Your task to perform on an android device: Show the shopping cart on amazon.com. Search for "apple airpods pro" on amazon.com, select the first entry, and add it to the cart. Image 0: 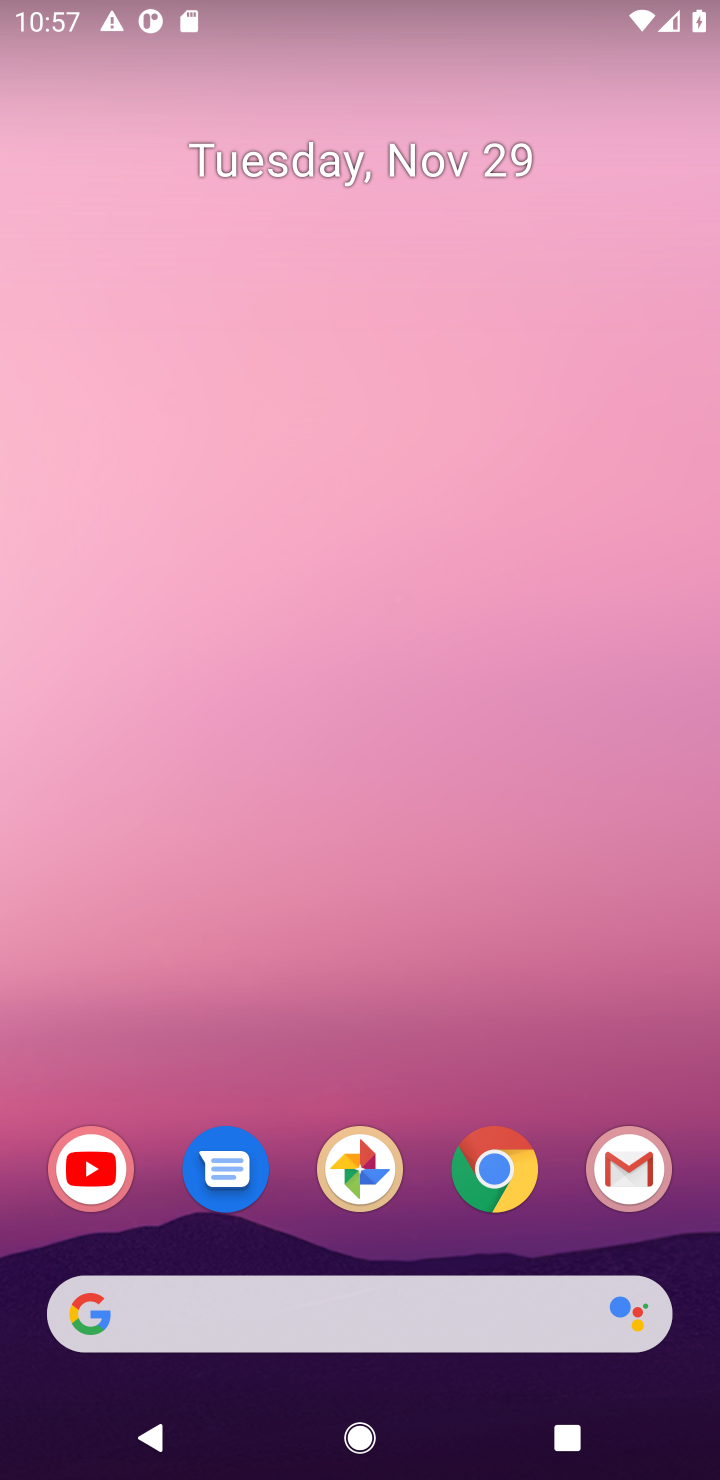
Step 0: click (249, 1316)
Your task to perform on an android device: Show the shopping cart on amazon.com. Search for "apple airpods pro" on amazon.com, select the first entry, and add it to the cart. Image 1: 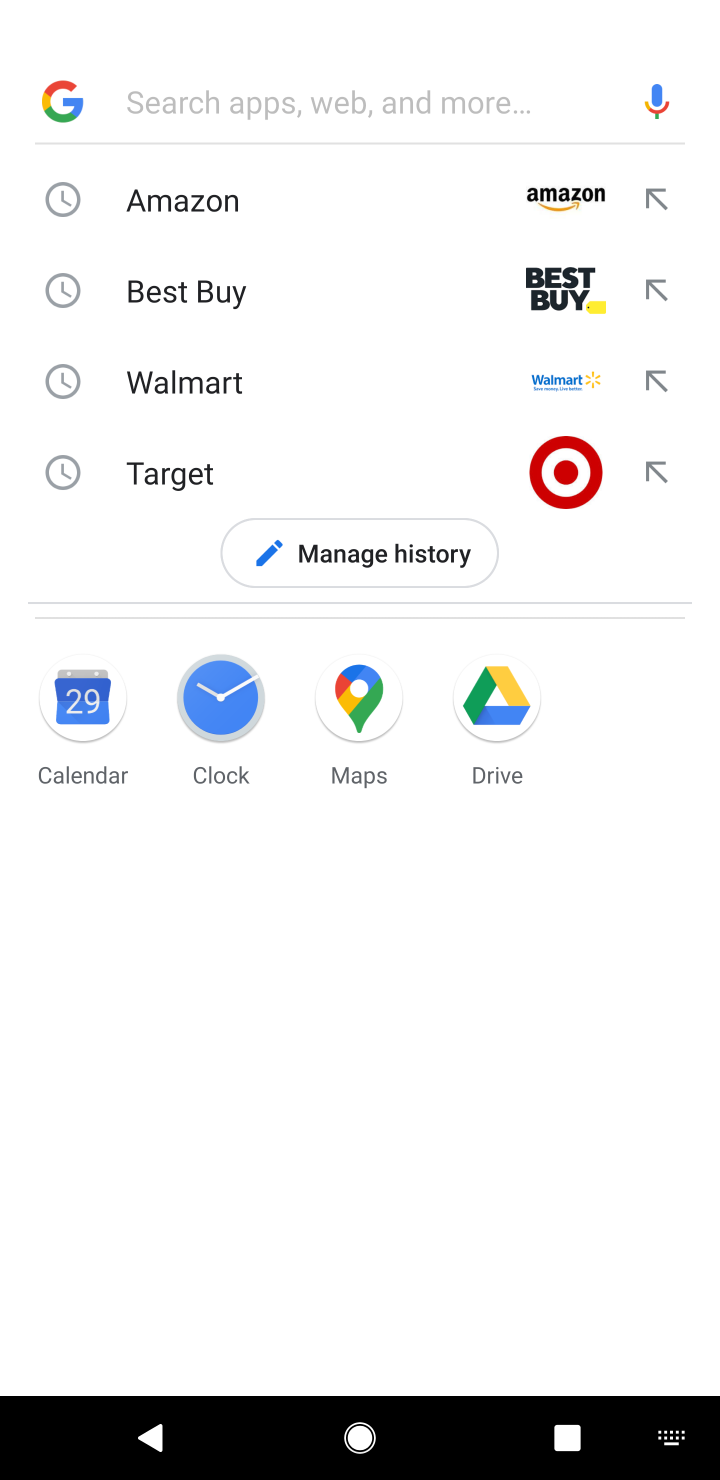
Step 1: click (183, 198)
Your task to perform on an android device: Show the shopping cart on amazon.com. Search for "apple airpods pro" on amazon.com, select the first entry, and add it to the cart. Image 2: 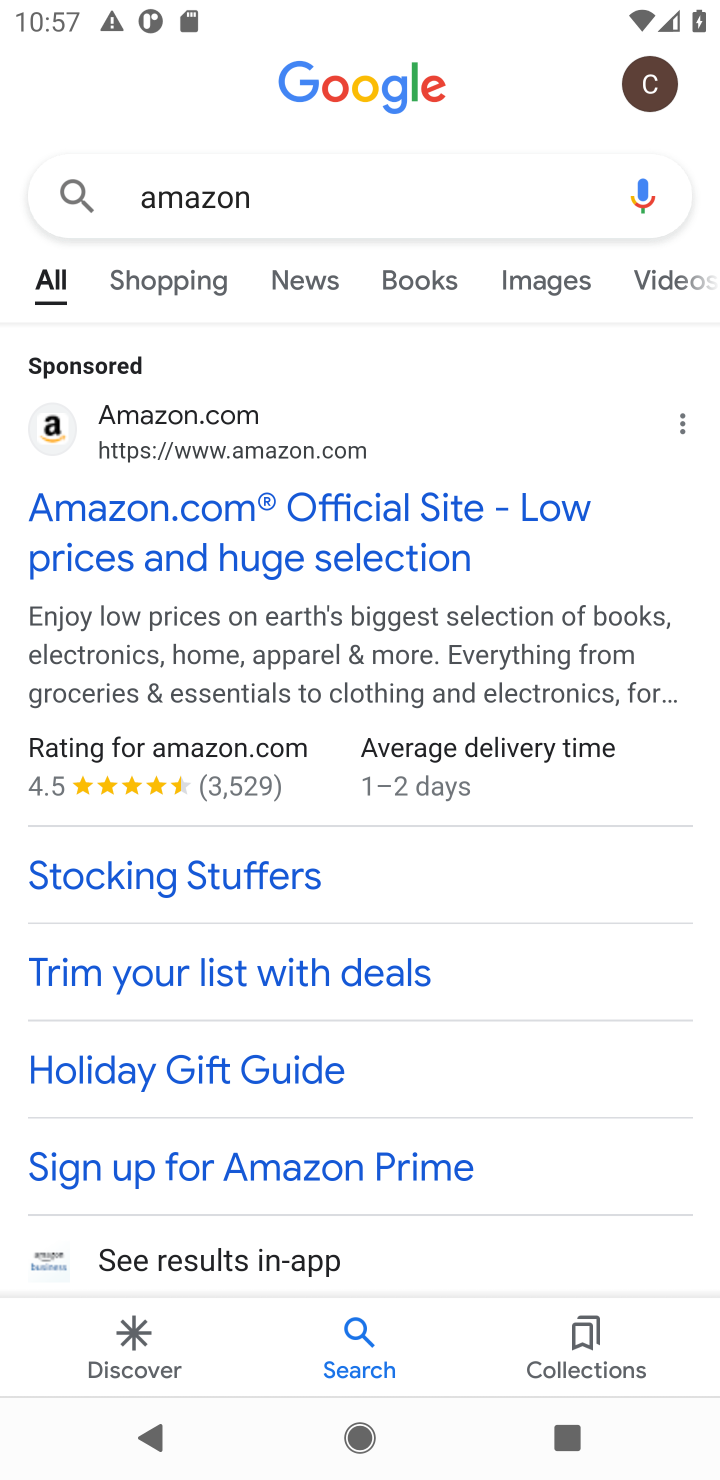
Step 2: click (255, 579)
Your task to perform on an android device: Show the shopping cart on amazon.com. Search for "apple airpods pro" on amazon.com, select the first entry, and add it to the cart. Image 3: 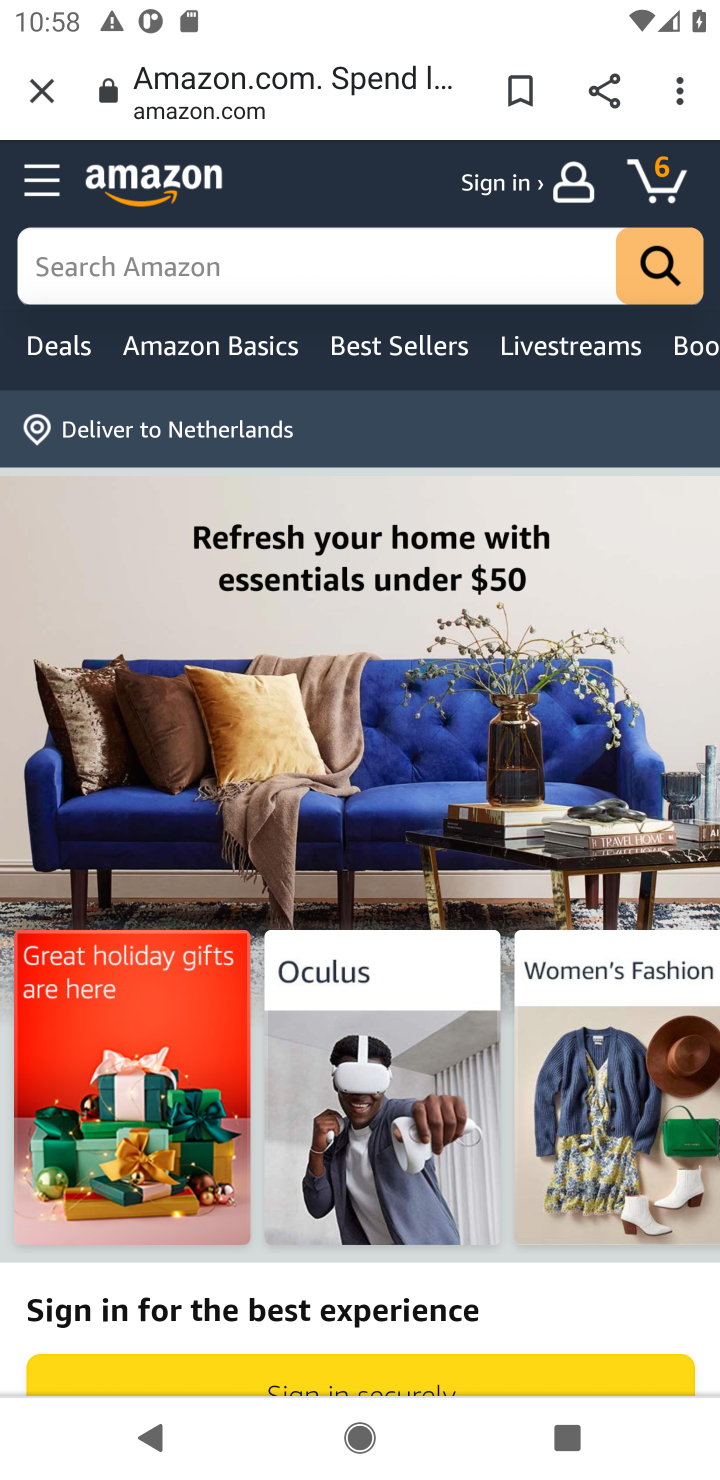
Step 3: click (153, 285)
Your task to perform on an android device: Show the shopping cart on amazon.com. Search for "apple airpods pro" on amazon.com, select the first entry, and add it to the cart. Image 4: 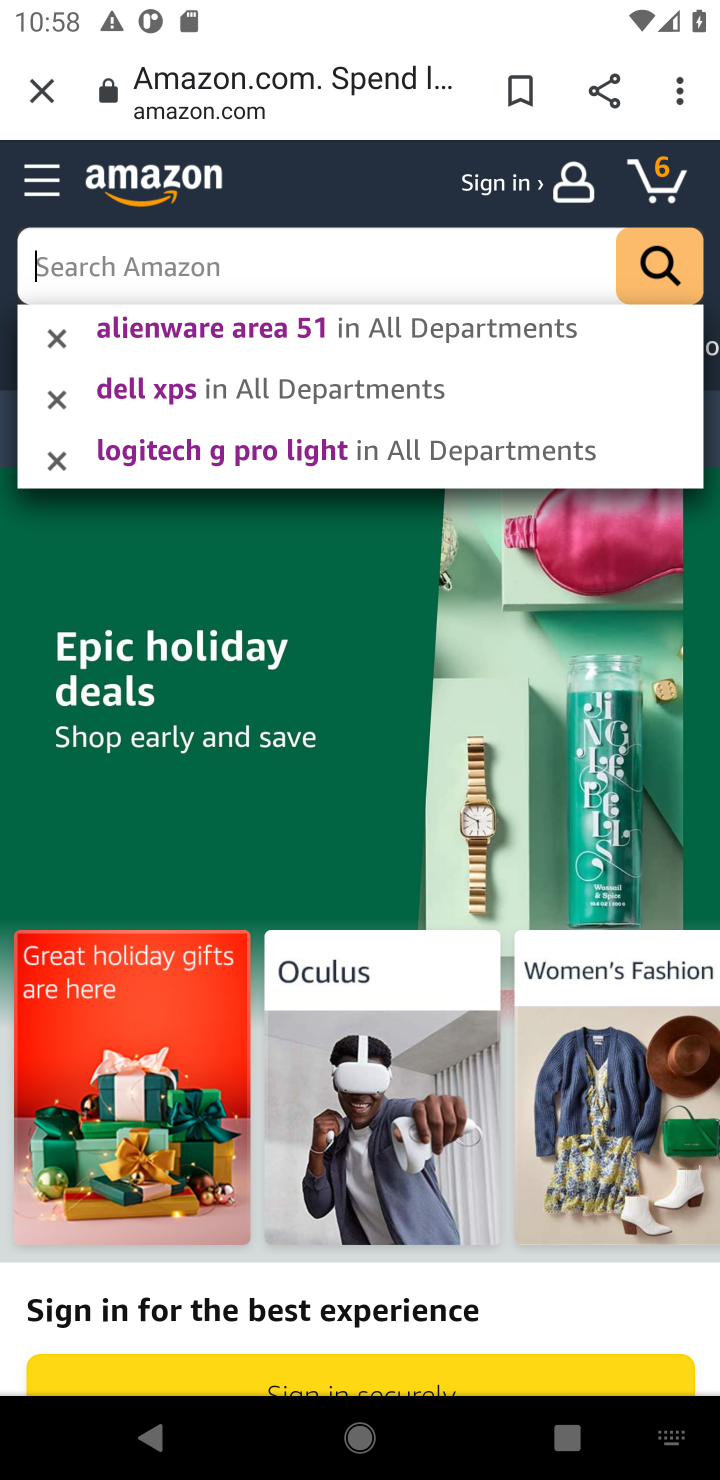
Step 4: type "apple airpod"
Your task to perform on an android device: Show the shopping cart on amazon.com. Search for "apple airpods pro" on amazon.com, select the first entry, and add it to the cart. Image 5: 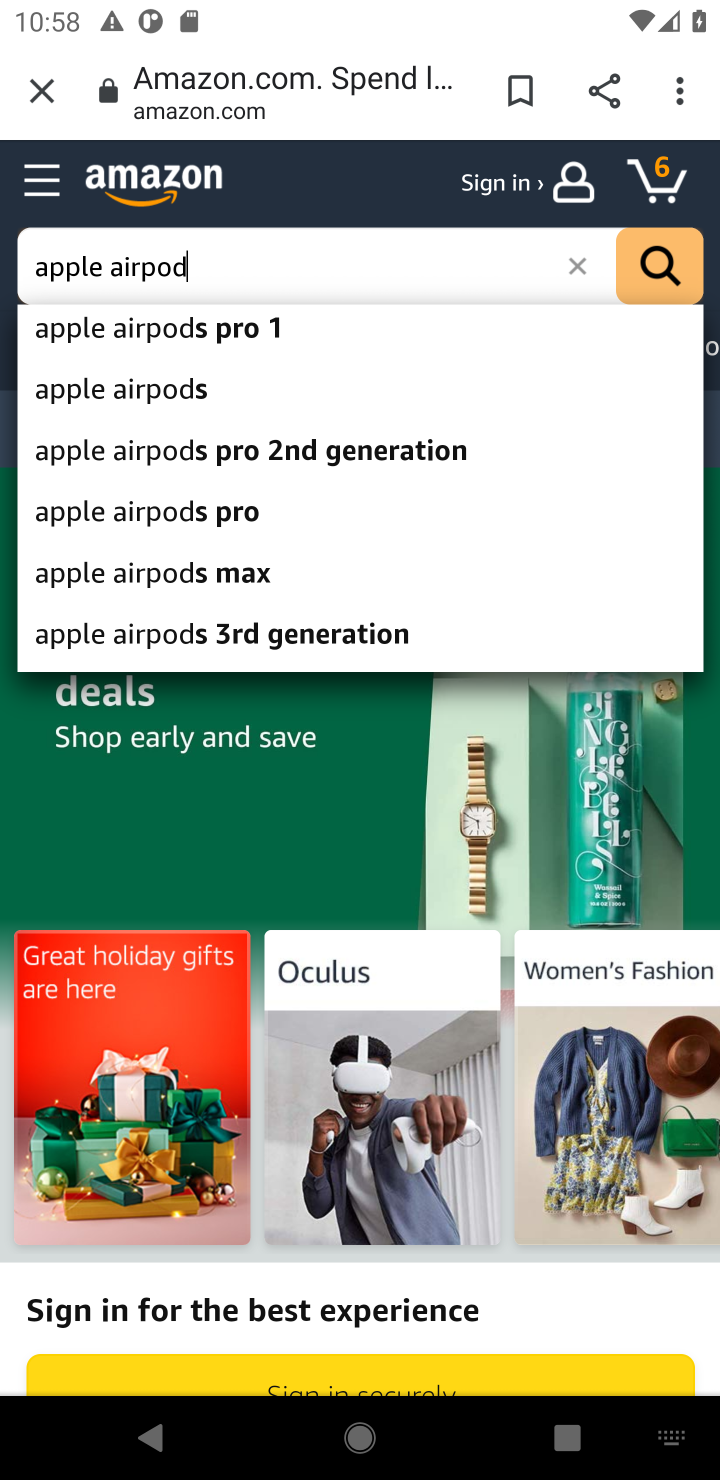
Step 5: click (190, 395)
Your task to perform on an android device: Show the shopping cart on amazon.com. Search for "apple airpods pro" on amazon.com, select the first entry, and add it to the cart. Image 6: 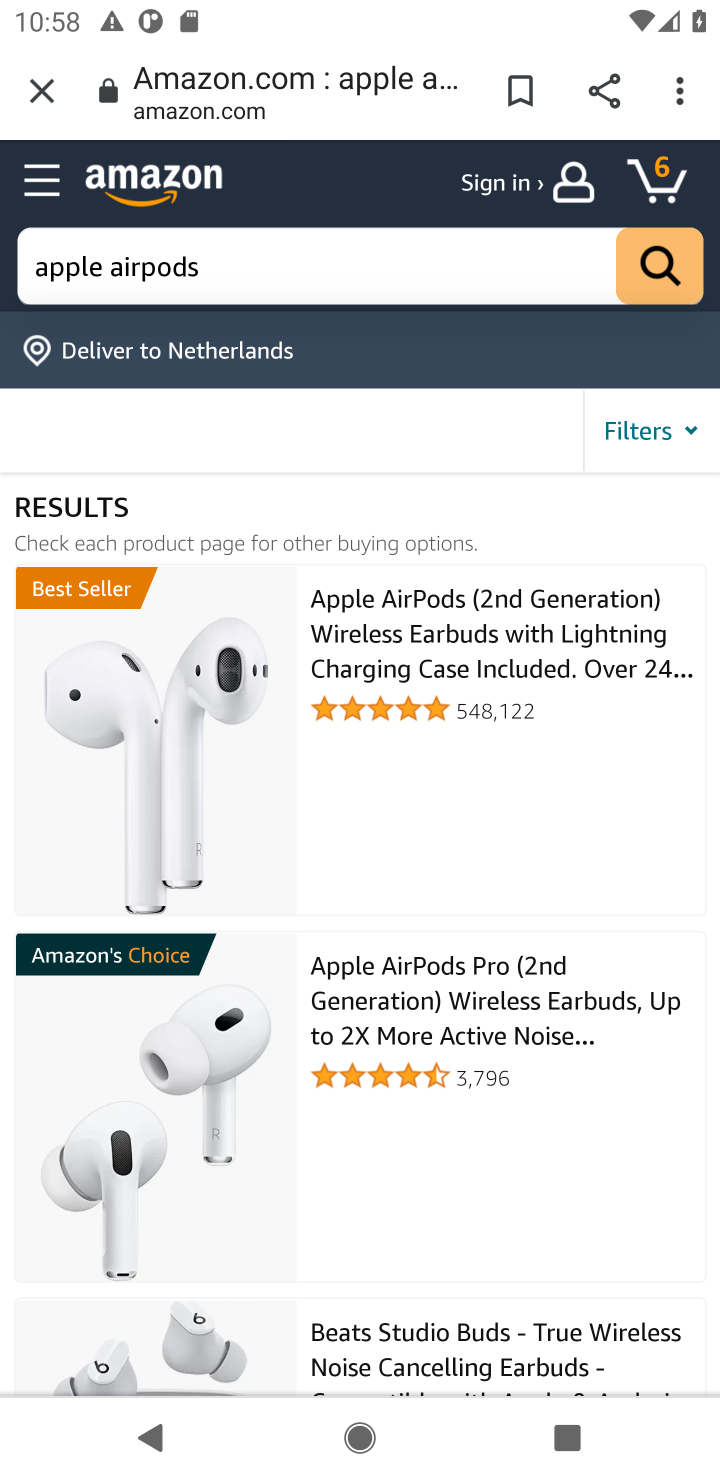
Step 6: click (413, 621)
Your task to perform on an android device: Show the shopping cart on amazon.com. Search for "apple airpods pro" on amazon.com, select the first entry, and add it to the cart. Image 7: 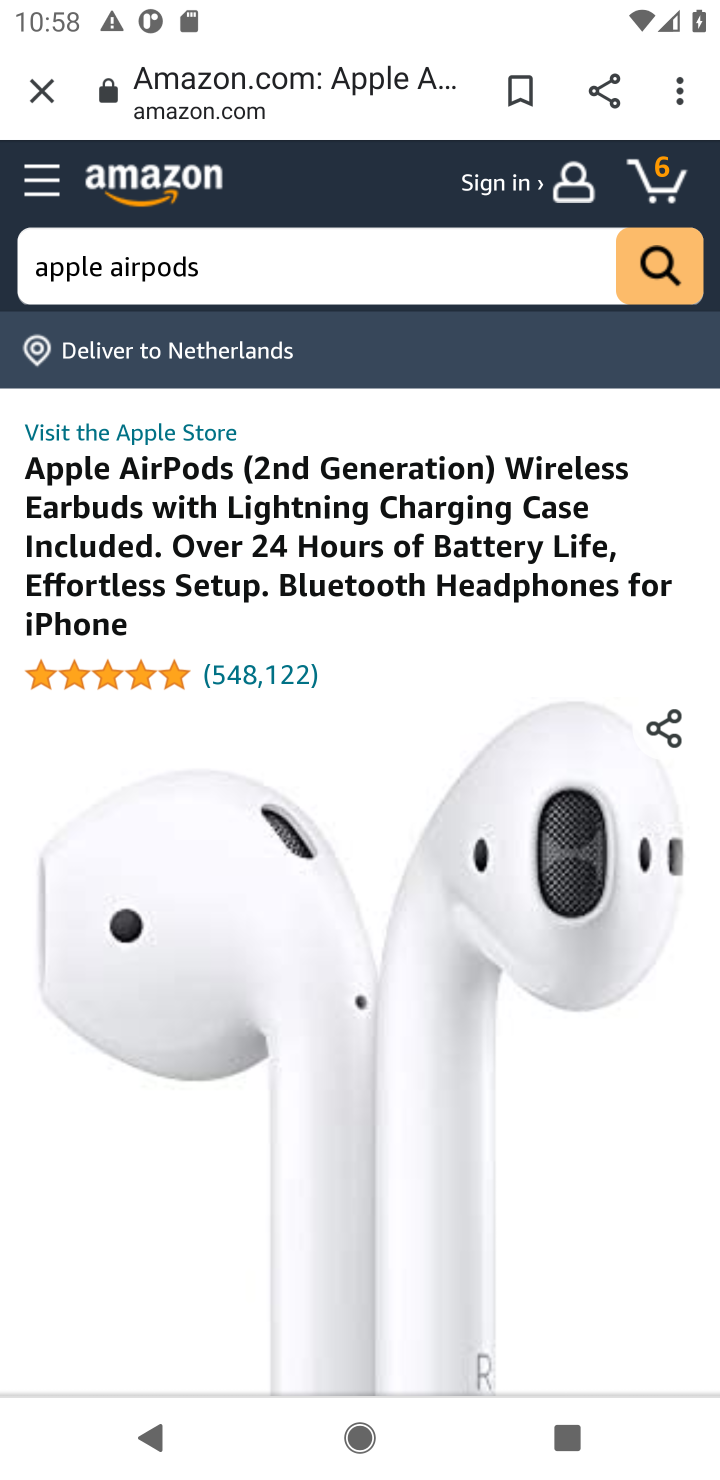
Step 7: drag from (398, 1153) to (400, 725)
Your task to perform on an android device: Show the shopping cart on amazon.com. Search for "apple airpods pro" on amazon.com, select the first entry, and add it to the cart. Image 8: 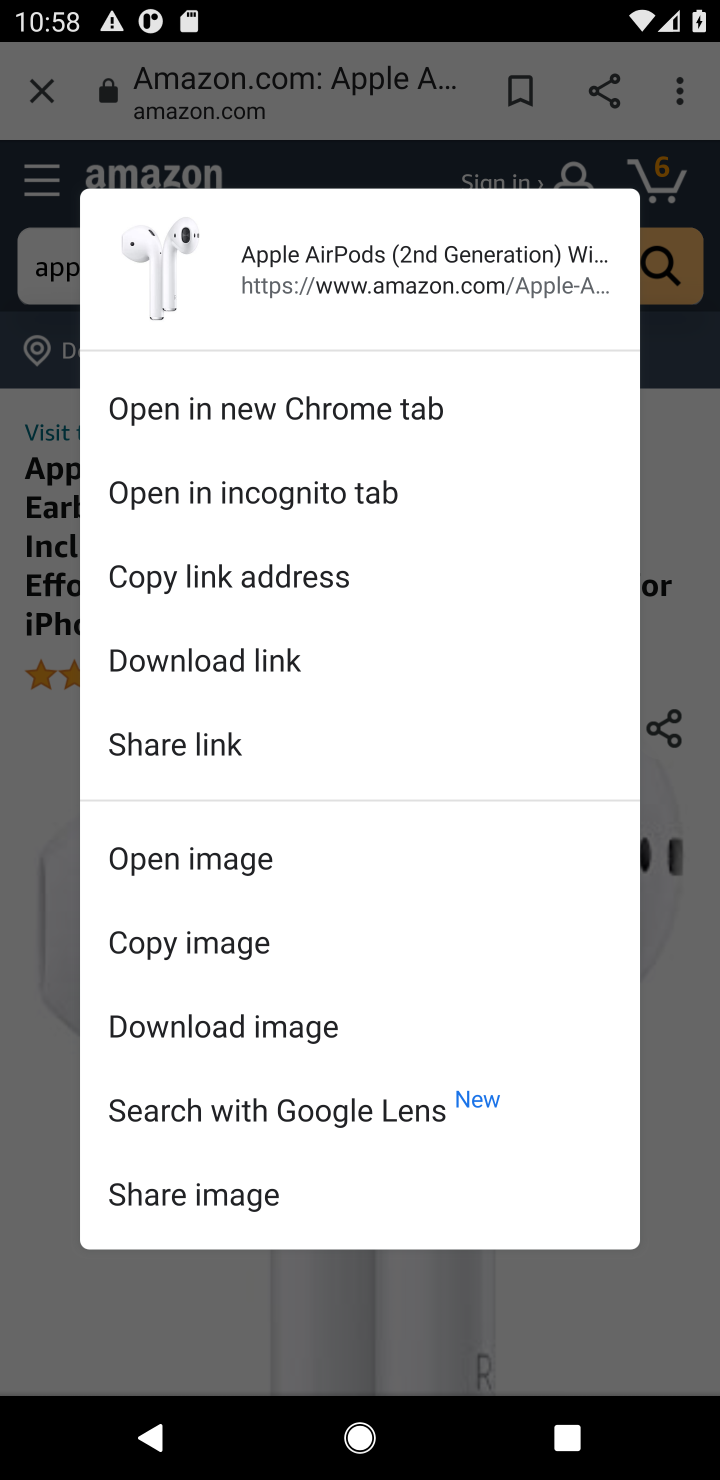
Step 8: click (417, 1296)
Your task to perform on an android device: Show the shopping cart on amazon.com. Search for "apple airpods pro" on amazon.com, select the first entry, and add it to the cart. Image 9: 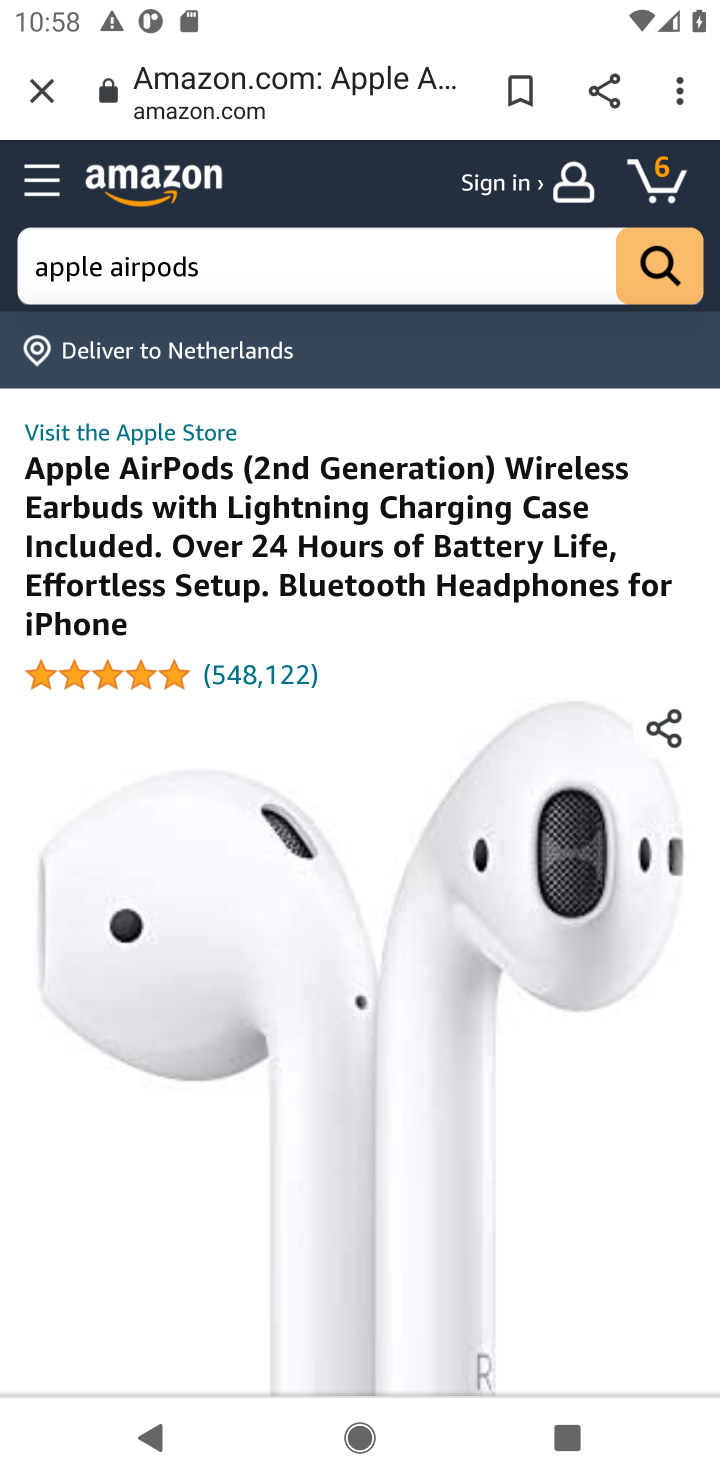
Step 9: drag from (417, 1296) to (361, 942)
Your task to perform on an android device: Show the shopping cart on amazon.com. Search for "apple airpods pro" on amazon.com, select the first entry, and add it to the cart. Image 10: 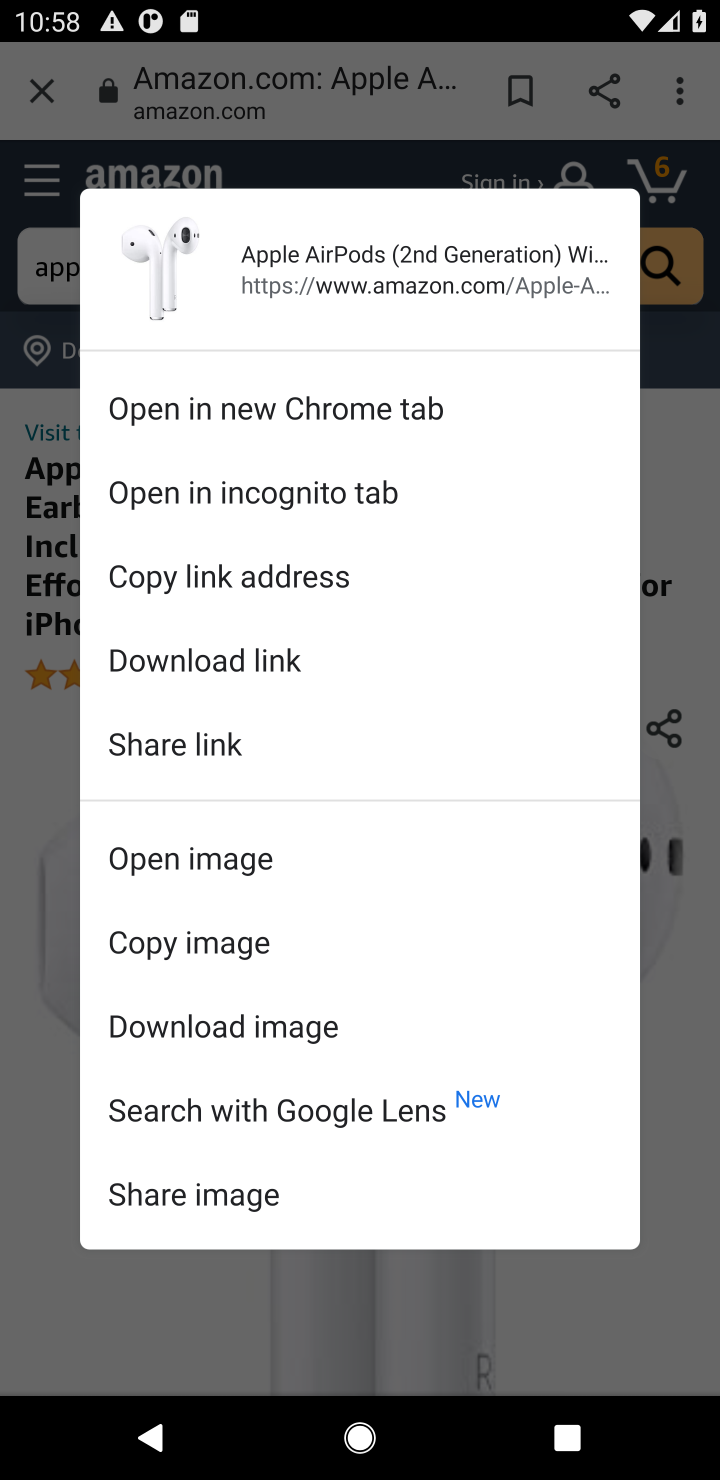
Step 10: click (548, 1291)
Your task to perform on an android device: Show the shopping cart on amazon.com. Search for "apple airpods pro" on amazon.com, select the first entry, and add it to the cart. Image 11: 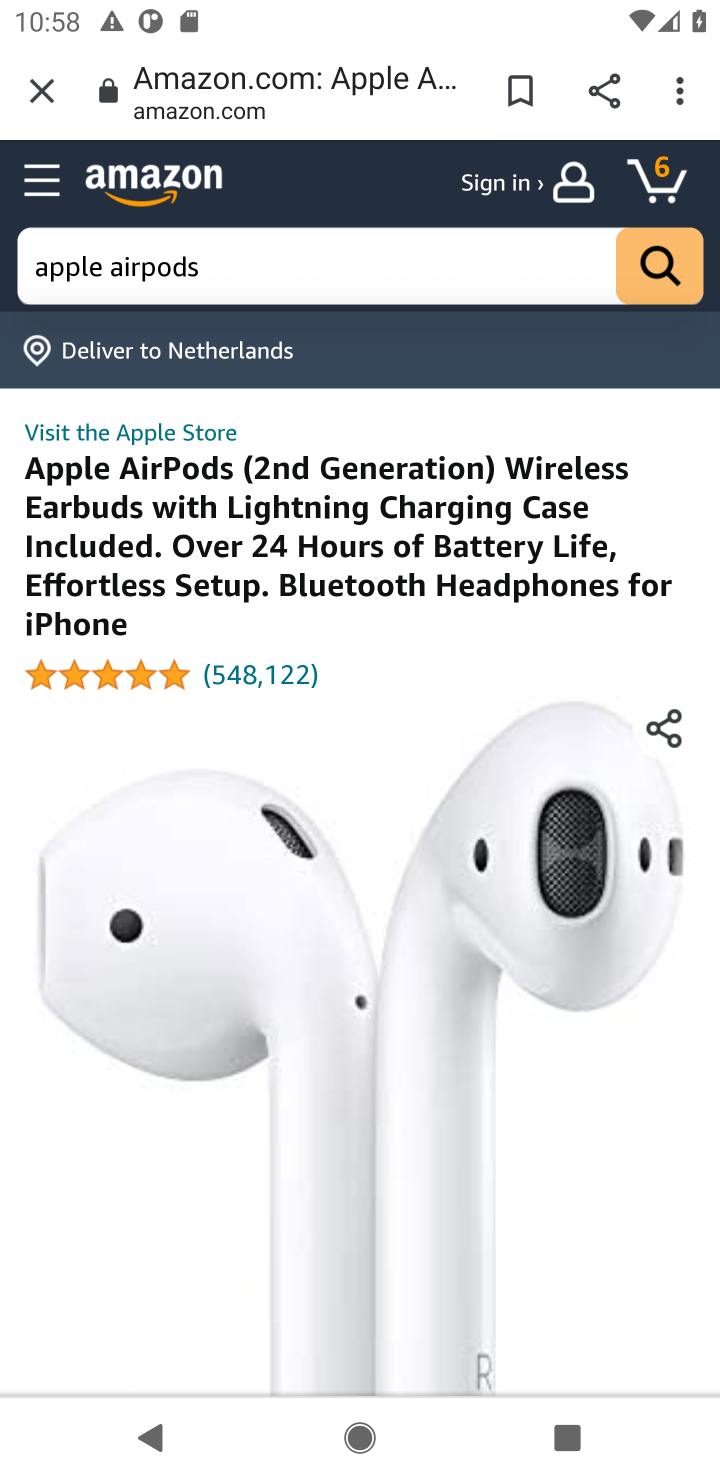
Step 11: drag from (548, 1291) to (325, 0)
Your task to perform on an android device: Show the shopping cart on amazon.com. Search for "apple airpods pro" on amazon.com, select the first entry, and add it to the cart. Image 12: 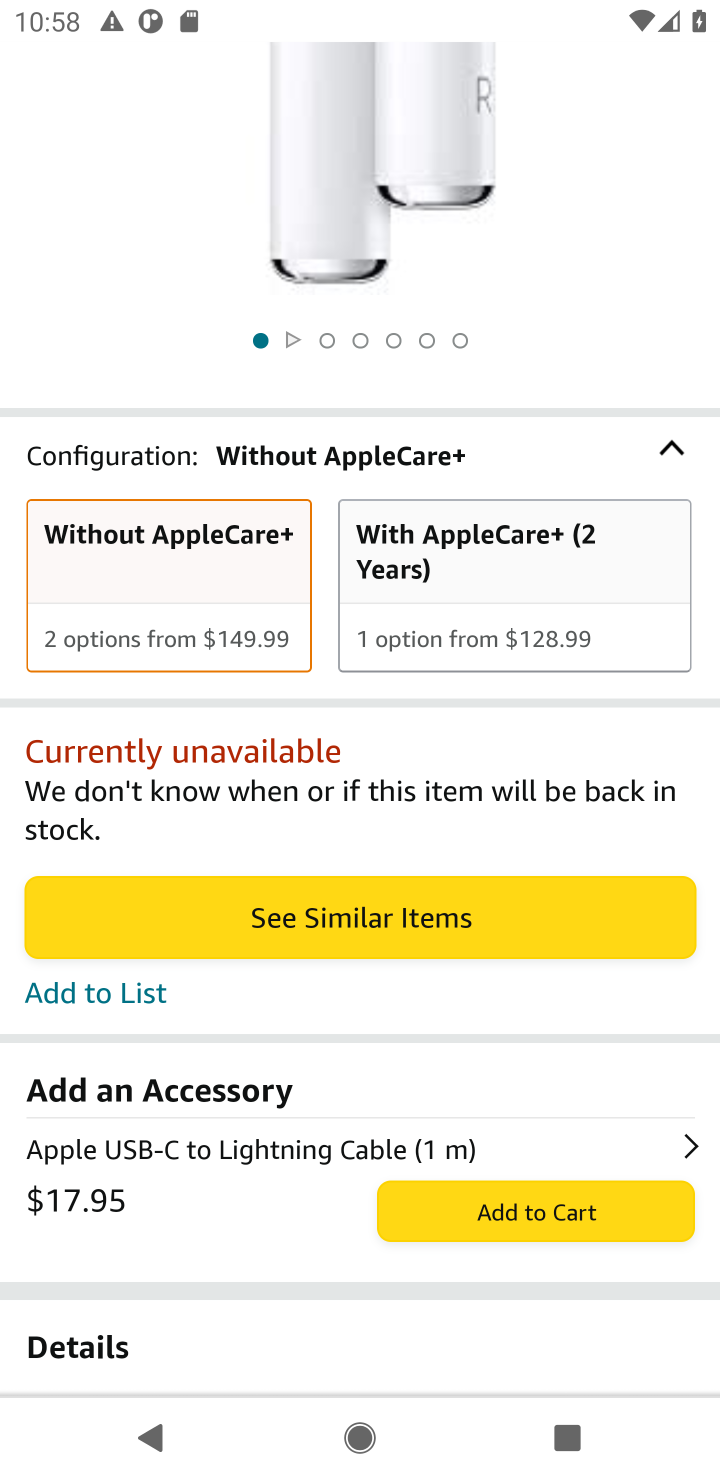
Step 12: click (507, 1199)
Your task to perform on an android device: Show the shopping cart on amazon.com. Search for "apple airpods pro" on amazon.com, select the first entry, and add it to the cart. Image 13: 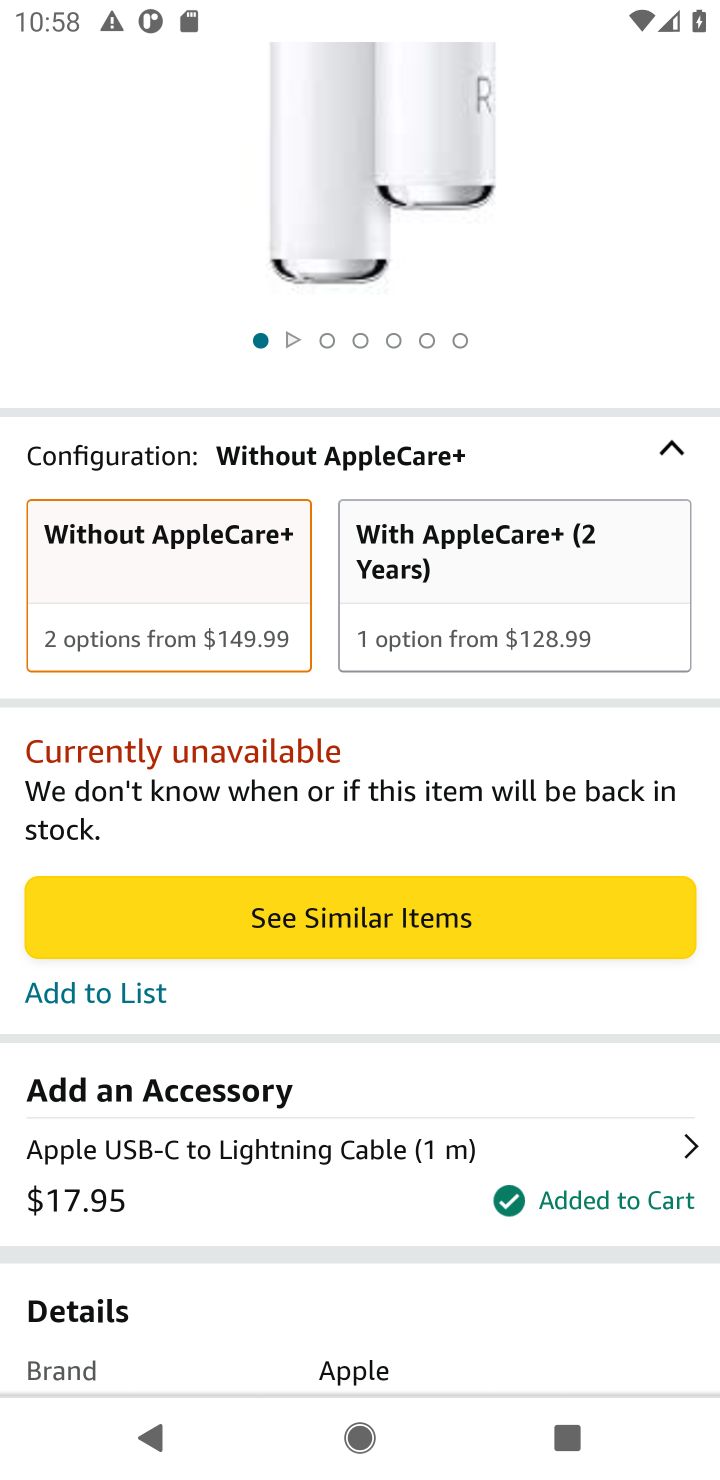
Step 13: task complete